Your task to perform on an android device: check storage Image 0: 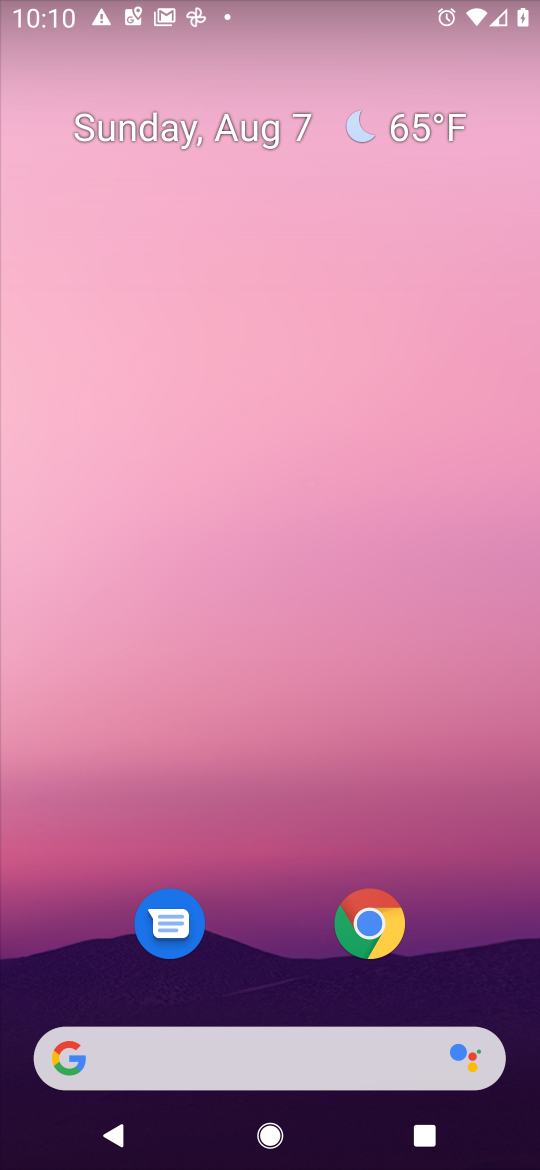
Step 0: drag from (460, 968) to (268, 198)
Your task to perform on an android device: check storage Image 1: 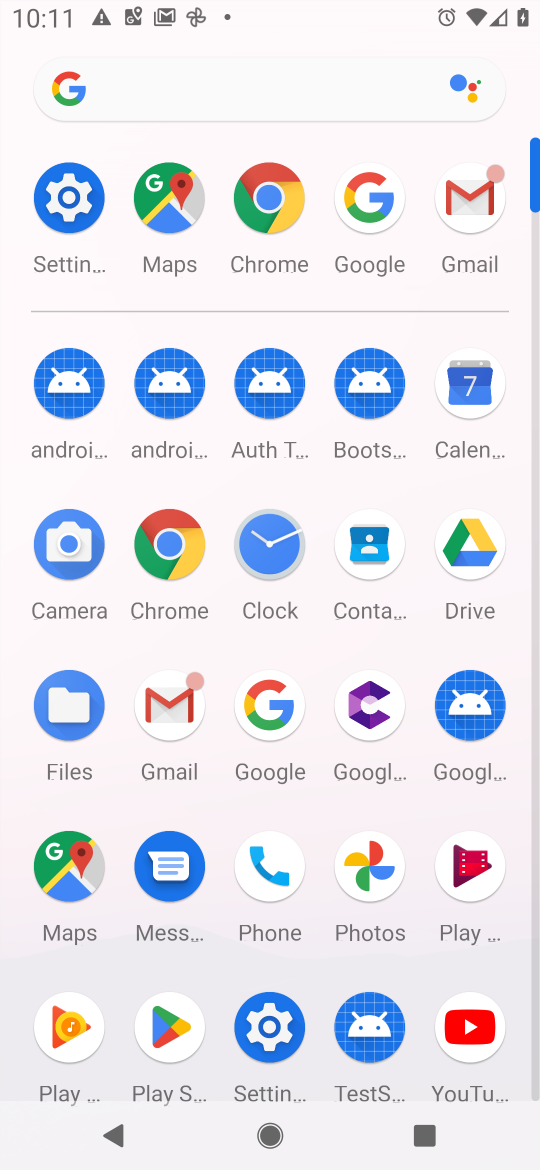
Step 1: click (283, 1030)
Your task to perform on an android device: check storage Image 2: 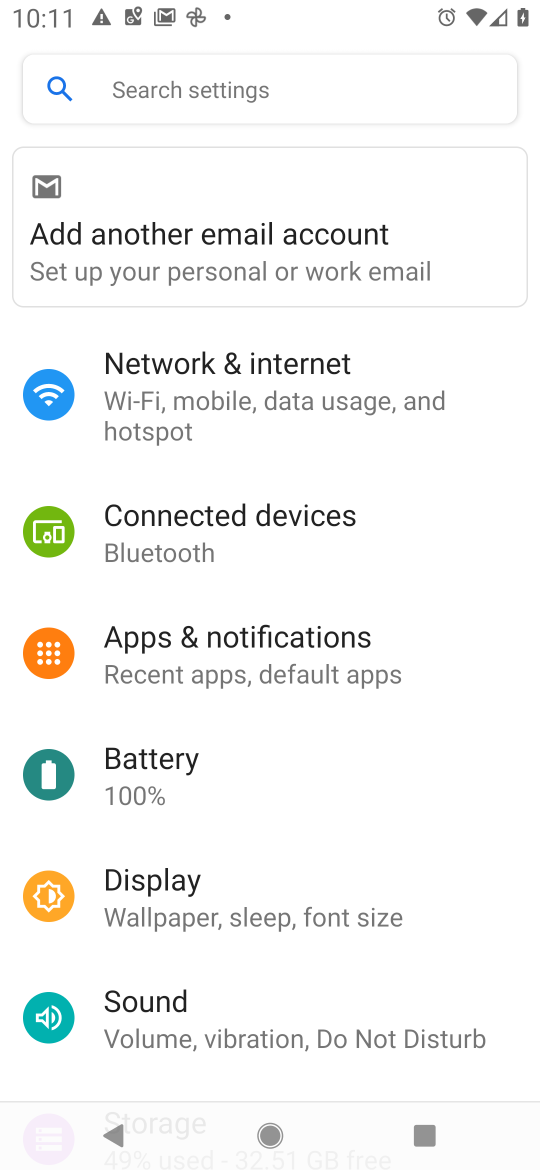
Step 2: drag from (120, 1035) to (163, 228)
Your task to perform on an android device: check storage Image 3: 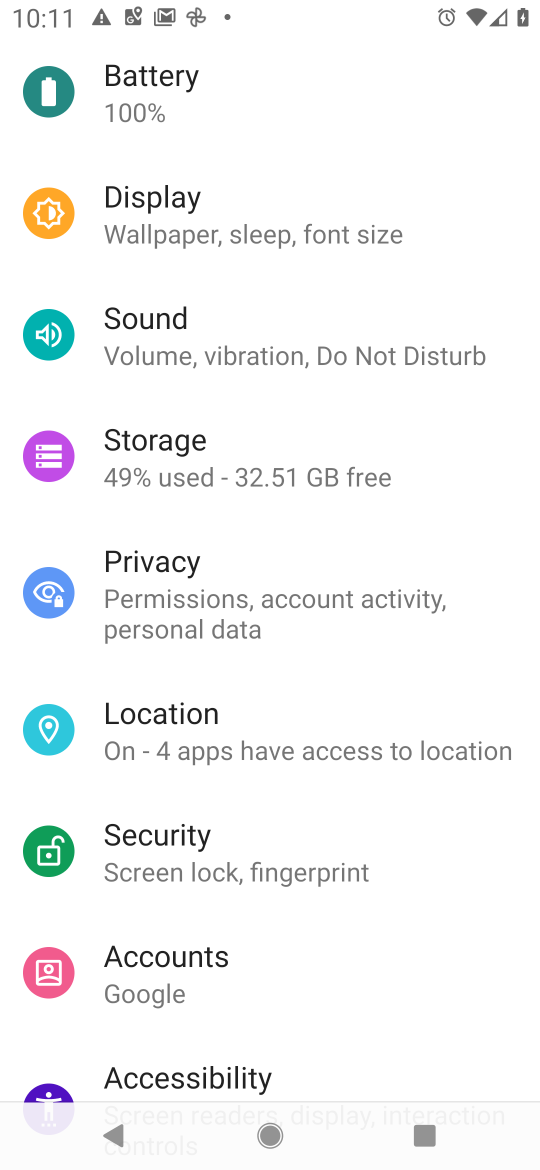
Step 3: drag from (180, 972) to (225, 248)
Your task to perform on an android device: check storage Image 4: 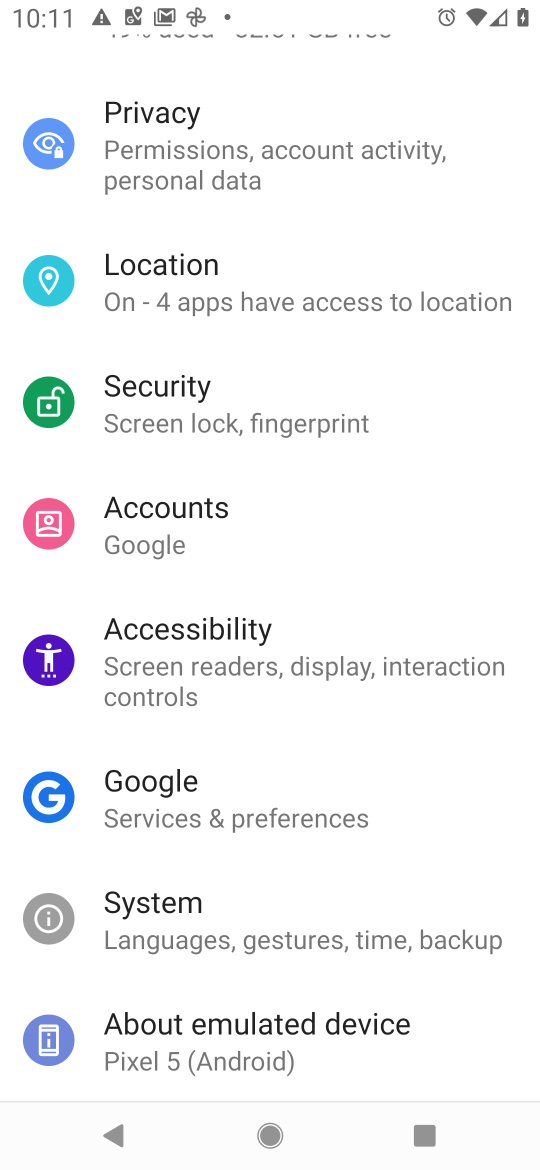
Step 4: drag from (270, 291) to (325, 978)
Your task to perform on an android device: check storage Image 5: 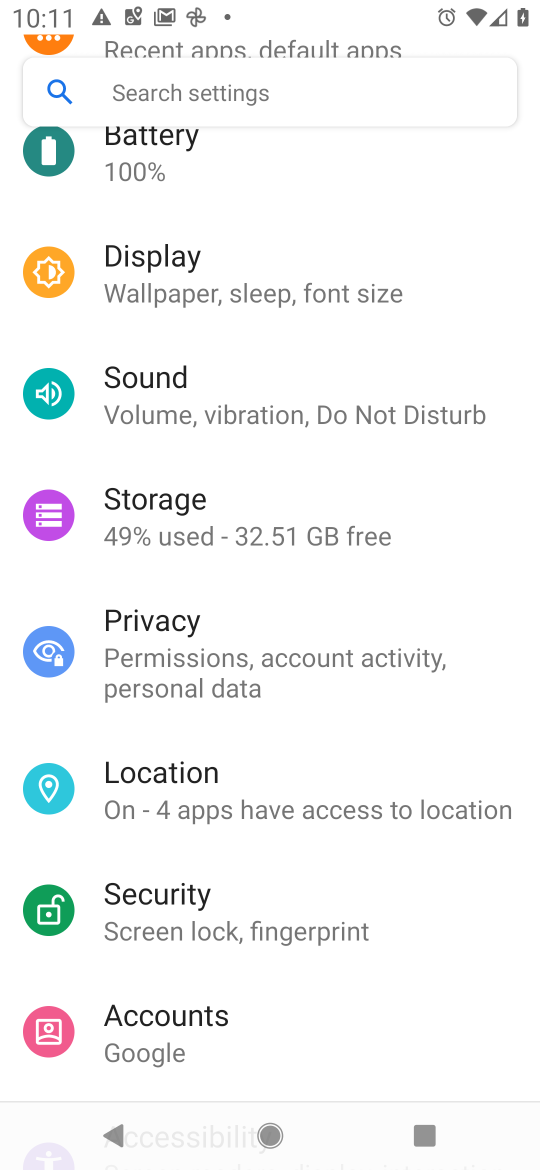
Step 5: click (129, 524)
Your task to perform on an android device: check storage Image 6: 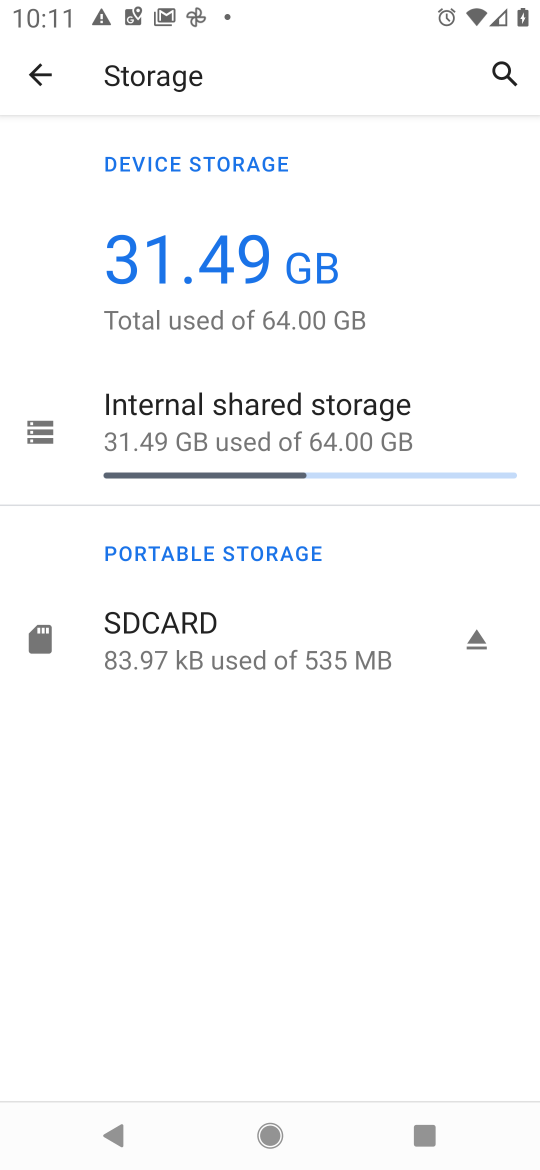
Step 6: click (288, 410)
Your task to perform on an android device: check storage Image 7: 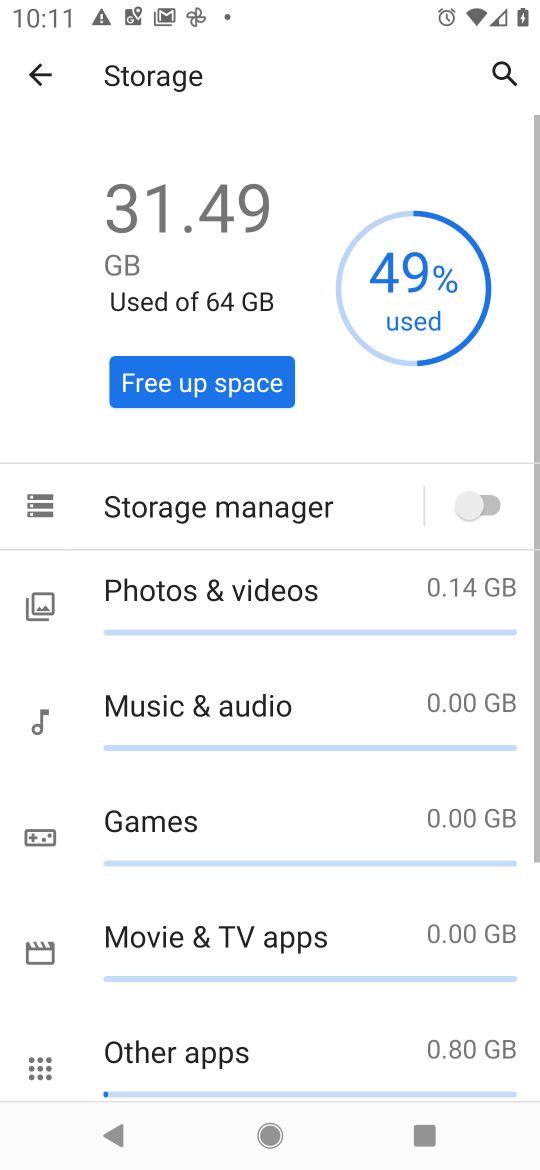
Step 7: task complete